Your task to perform on an android device: open a new tab in the chrome app Image 0: 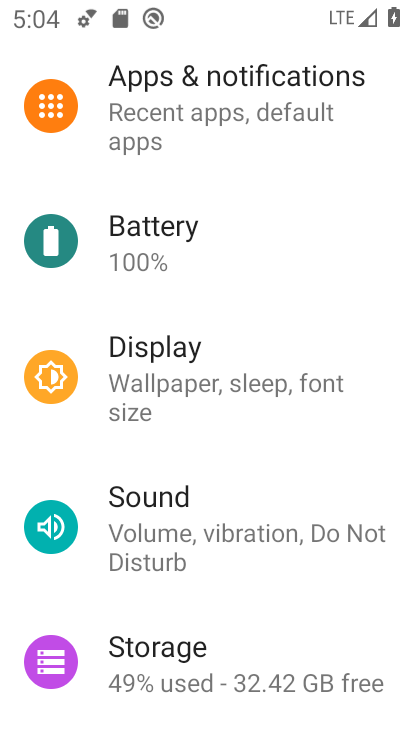
Step 0: press home button
Your task to perform on an android device: open a new tab in the chrome app Image 1: 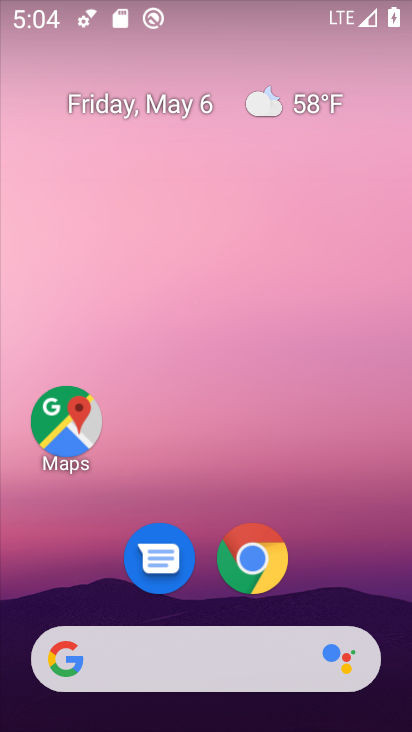
Step 1: drag from (302, 620) to (277, 14)
Your task to perform on an android device: open a new tab in the chrome app Image 2: 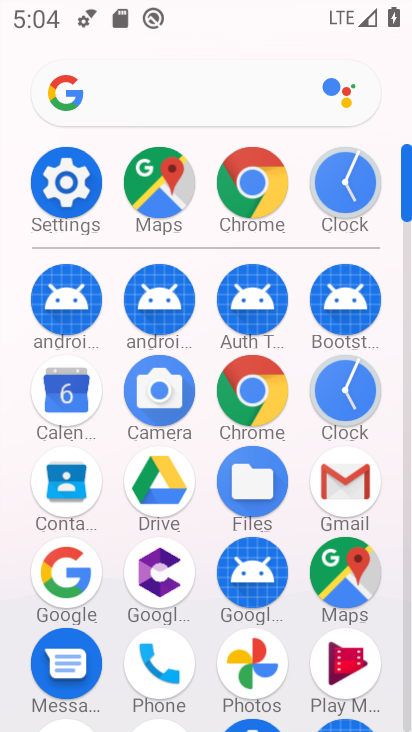
Step 2: click (260, 406)
Your task to perform on an android device: open a new tab in the chrome app Image 3: 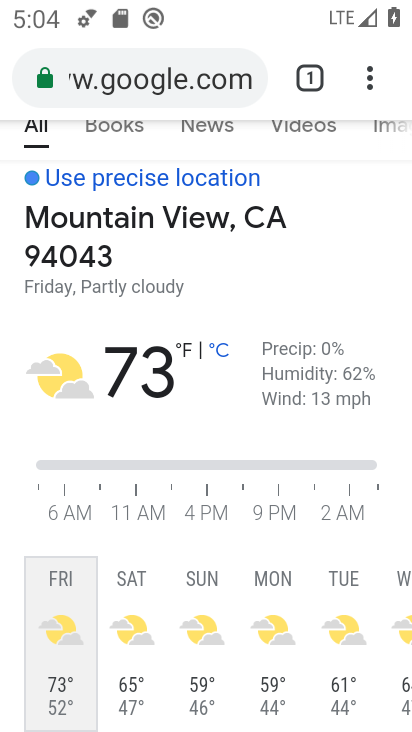
Step 3: task complete